Your task to perform on an android device: turn on notifications settings in the gmail app Image 0: 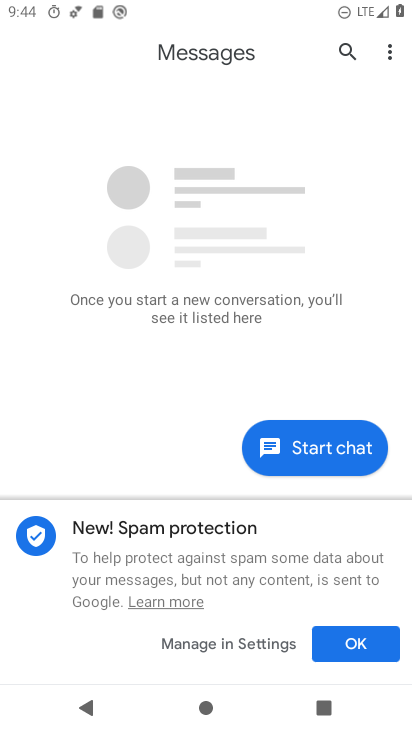
Step 0: press home button
Your task to perform on an android device: turn on notifications settings in the gmail app Image 1: 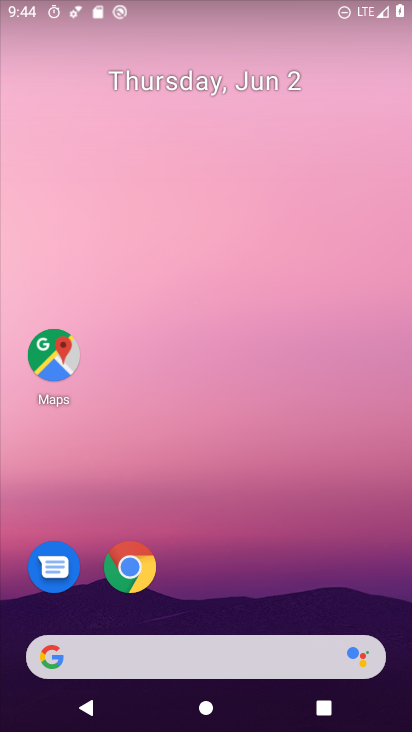
Step 1: drag from (378, 536) to (335, 75)
Your task to perform on an android device: turn on notifications settings in the gmail app Image 2: 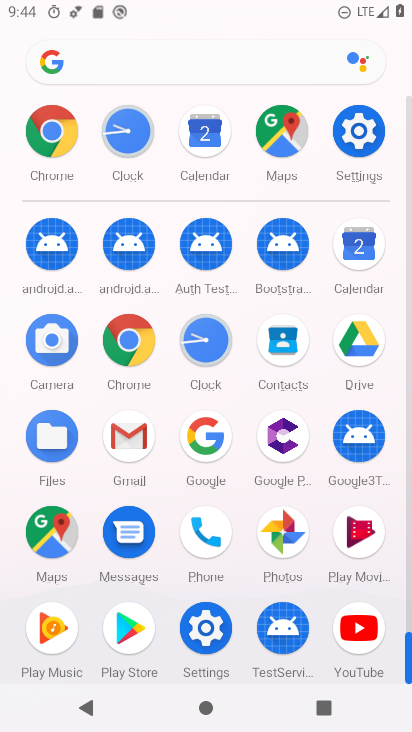
Step 2: click (133, 462)
Your task to perform on an android device: turn on notifications settings in the gmail app Image 3: 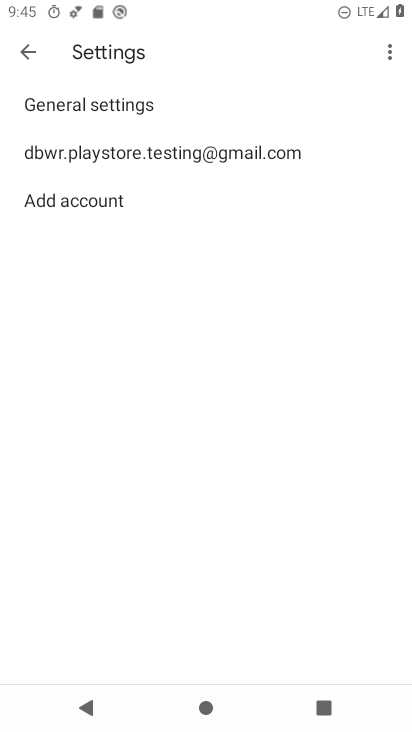
Step 3: click (236, 159)
Your task to perform on an android device: turn on notifications settings in the gmail app Image 4: 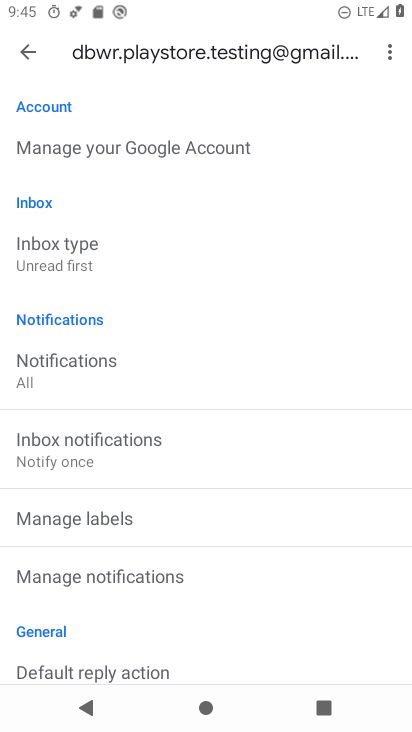
Step 4: click (131, 376)
Your task to perform on an android device: turn on notifications settings in the gmail app Image 5: 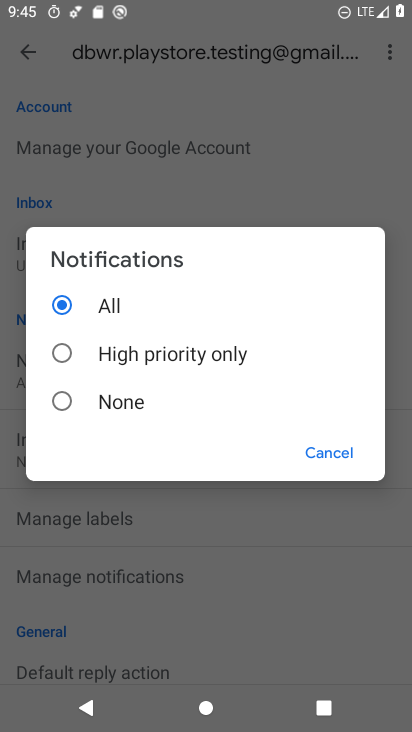
Step 5: task complete